Your task to perform on an android device: Go to accessibility settings Image 0: 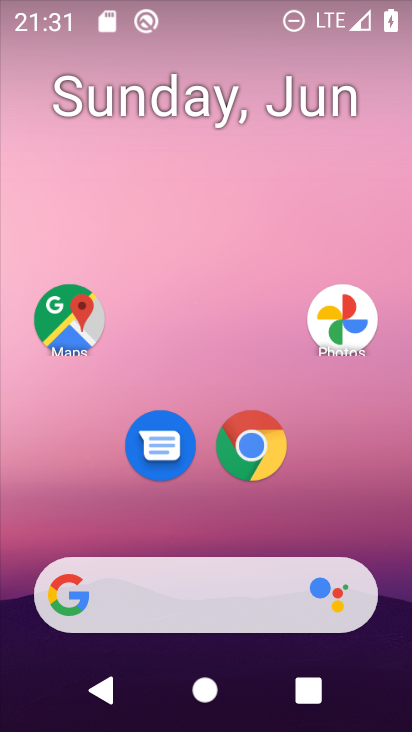
Step 0: press home button
Your task to perform on an android device: Go to accessibility settings Image 1: 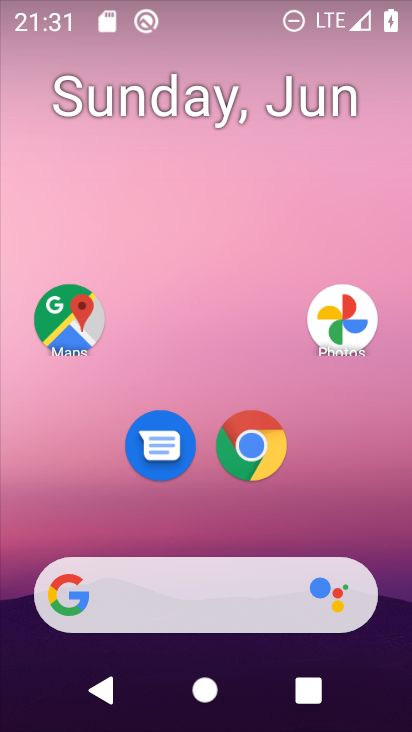
Step 1: drag from (284, 530) to (273, 126)
Your task to perform on an android device: Go to accessibility settings Image 2: 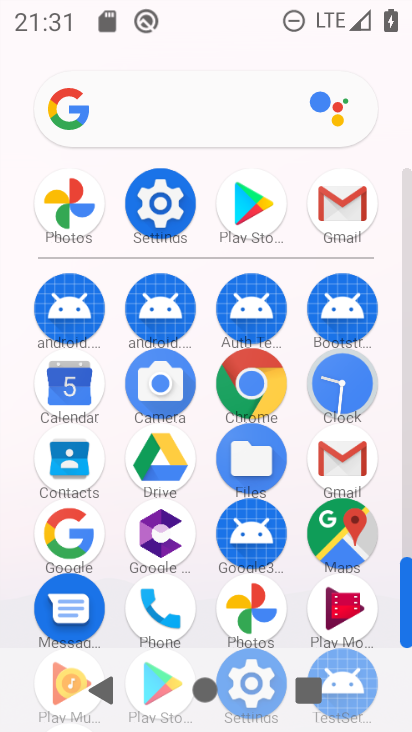
Step 2: click (158, 200)
Your task to perform on an android device: Go to accessibility settings Image 3: 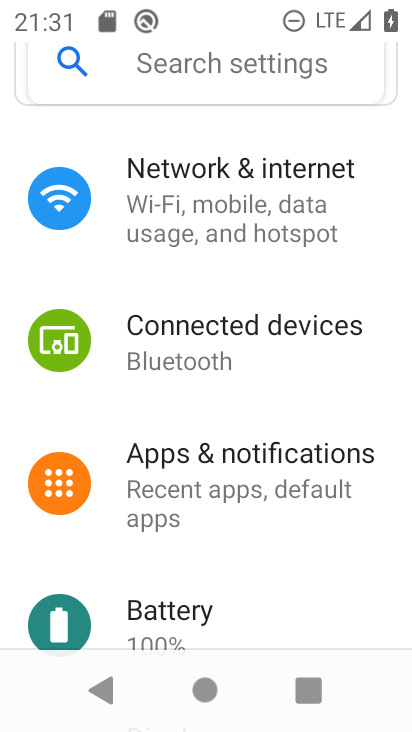
Step 3: drag from (262, 555) to (265, 147)
Your task to perform on an android device: Go to accessibility settings Image 4: 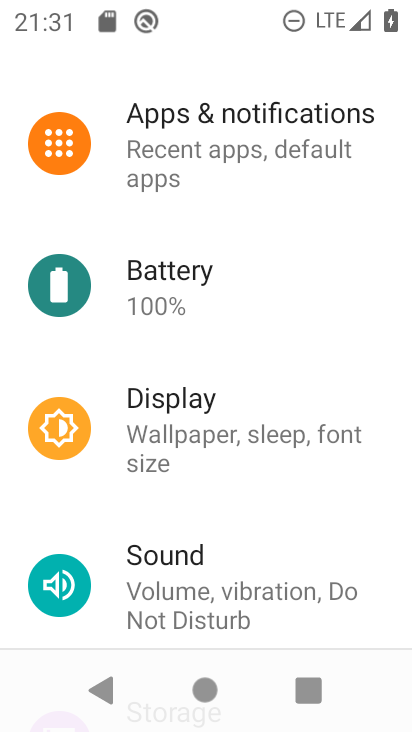
Step 4: drag from (273, 514) to (245, 141)
Your task to perform on an android device: Go to accessibility settings Image 5: 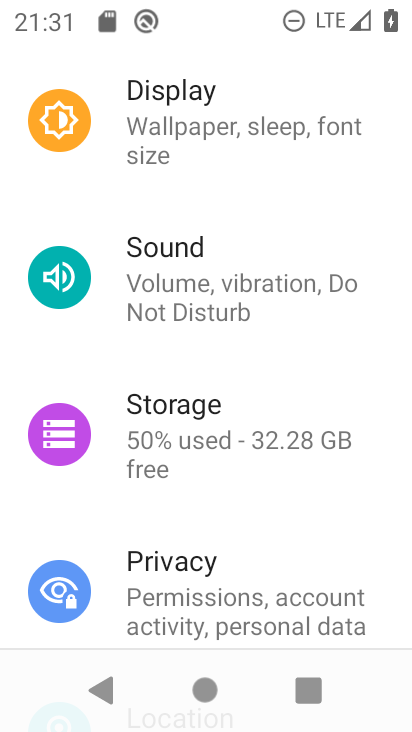
Step 5: drag from (256, 517) to (231, 122)
Your task to perform on an android device: Go to accessibility settings Image 6: 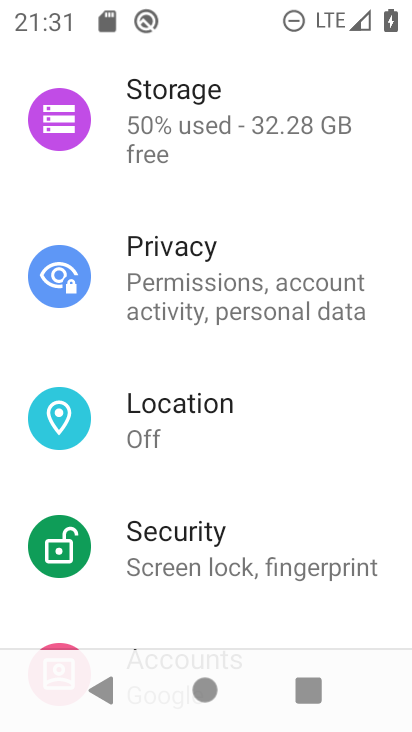
Step 6: drag from (304, 497) to (313, 78)
Your task to perform on an android device: Go to accessibility settings Image 7: 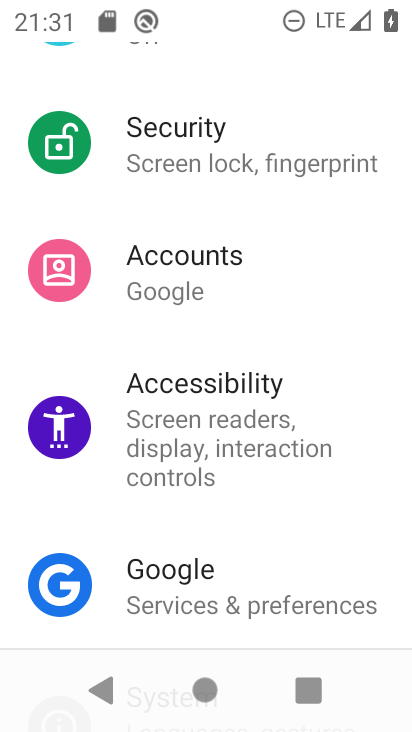
Step 7: click (185, 391)
Your task to perform on an android device: Go to accessibility settings Image 8: 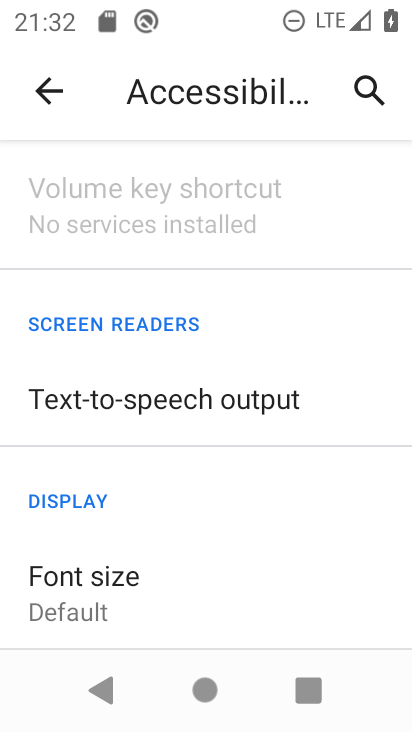
Step 8: task complete